Your task to perform on an android device: Search for flights from NYC to Barcelona Image 0: 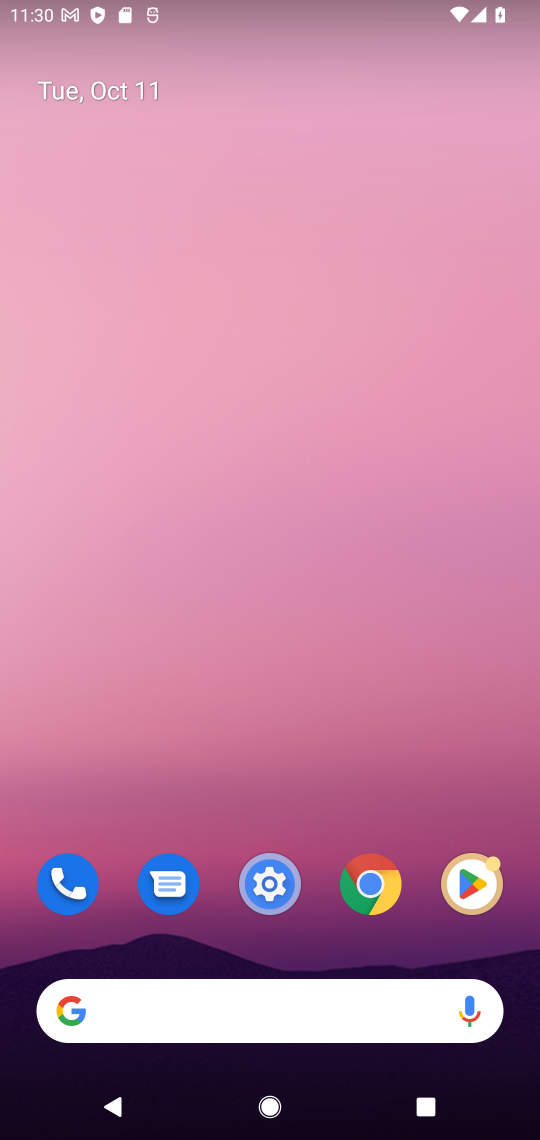
Step 0: drag from (263, 582) to (255, 166)
Your task to perform on an android device: Search for flights from NYC to Barcelona Image 1: 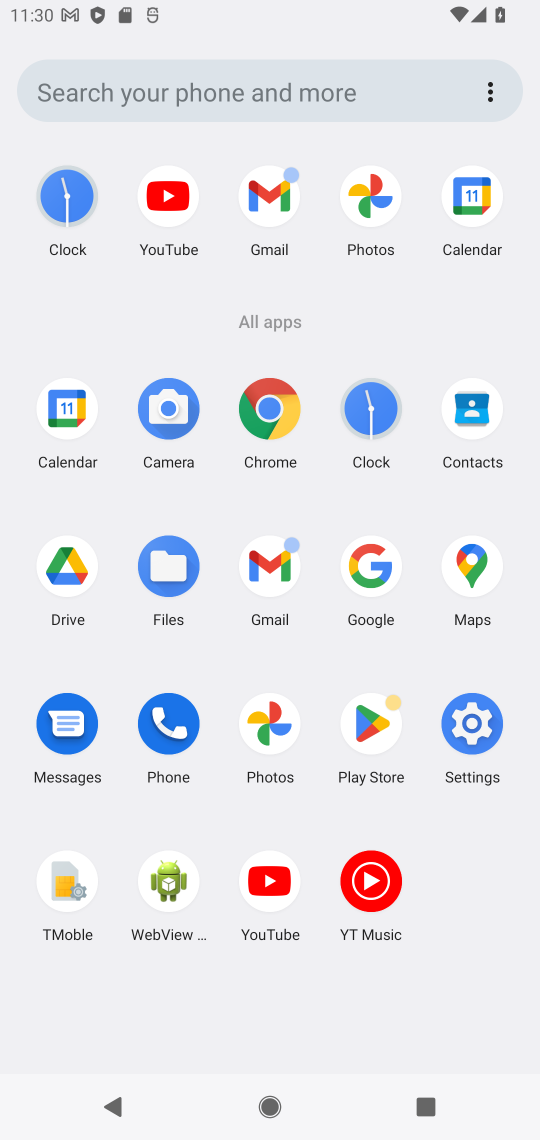
Step 1: click (368, 577)
Your task to perform on an android device: Search for flights from NYC to Barcelona Image 2: 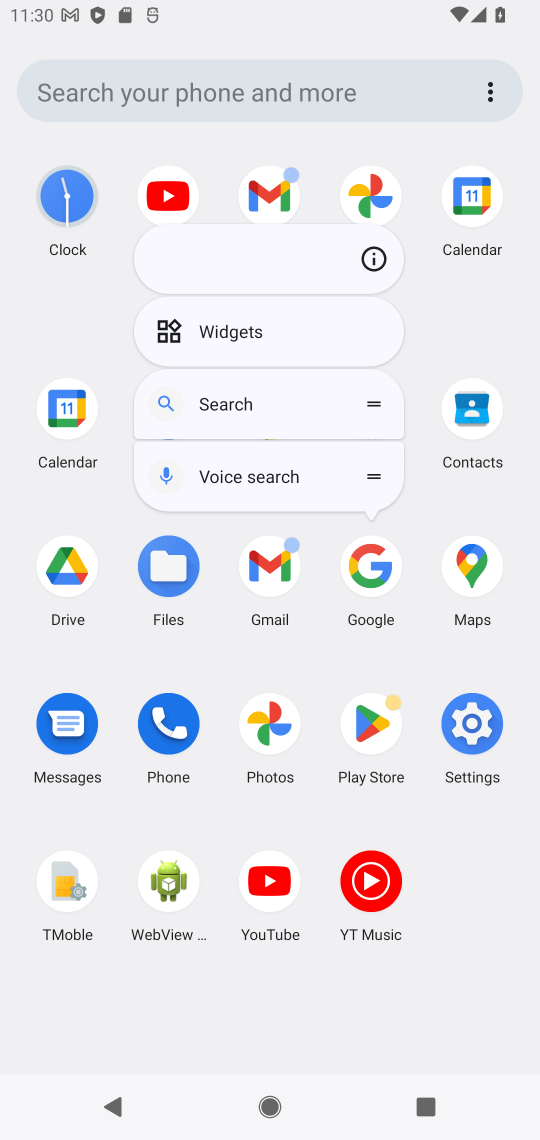
Step 2: click (366, 571)
Your task to perform on an android device: Search for flights from NYC to Barcelona Image 3: 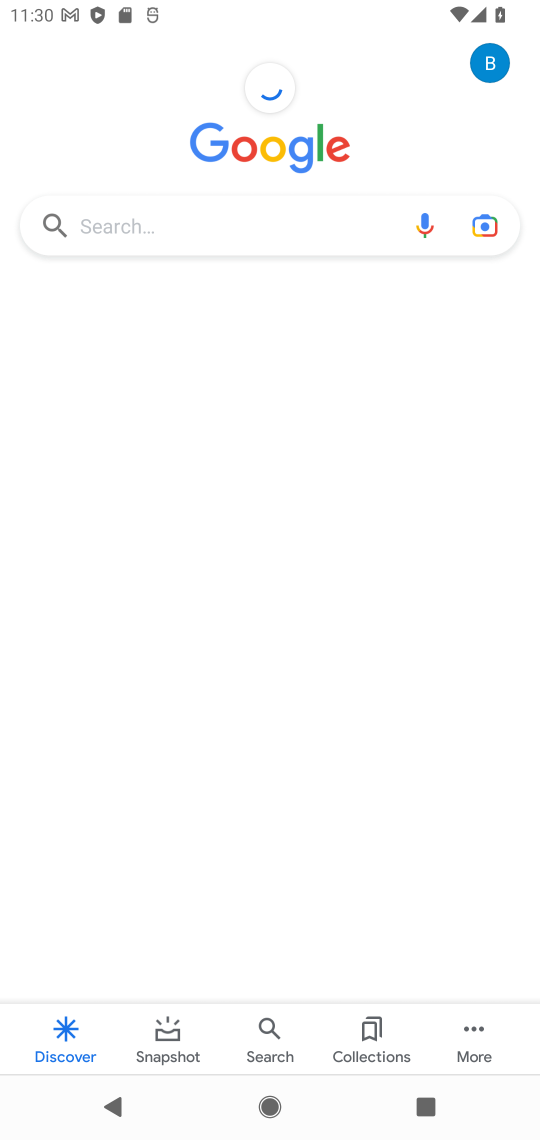
Step 3: click (173, 230)
Your task to perform on an android device: Search for flights from NYC to Barcelona Image 4: 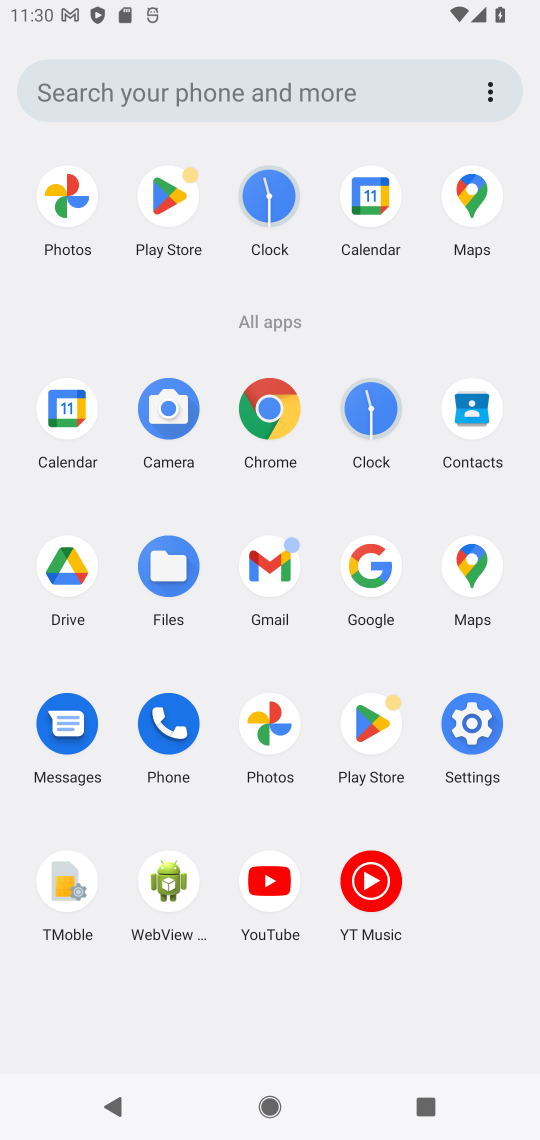
Step 4: type "Search for flights from NYC to Barcelona"
Your task to perform on an android device: Search for flights from NYC to Barcelona Image 5: 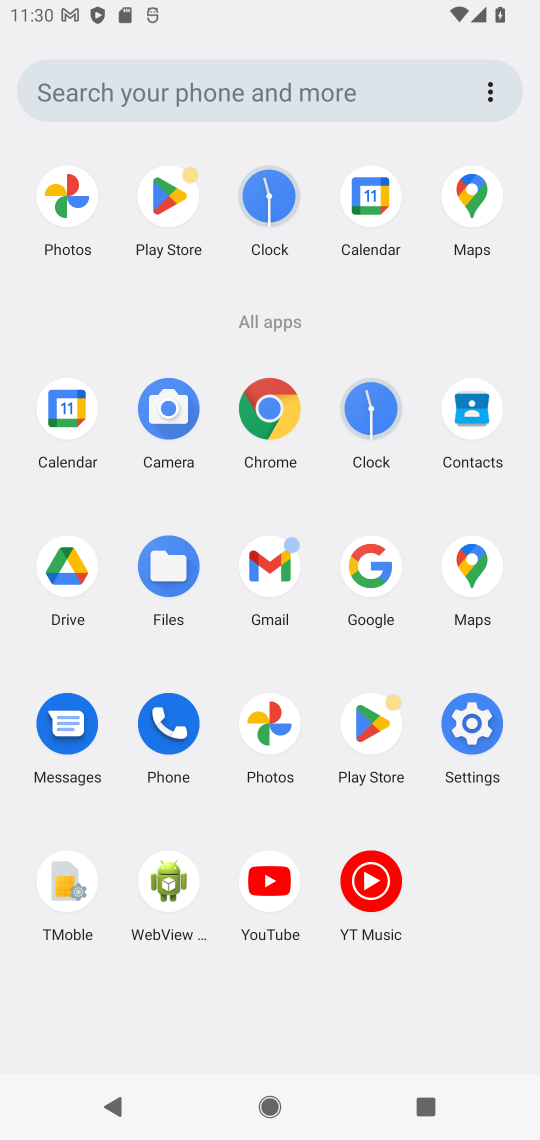
Step 5: click (370, 558)
Your task to perform on an android device: Search for flights from NYC to Barcelona Image 6: 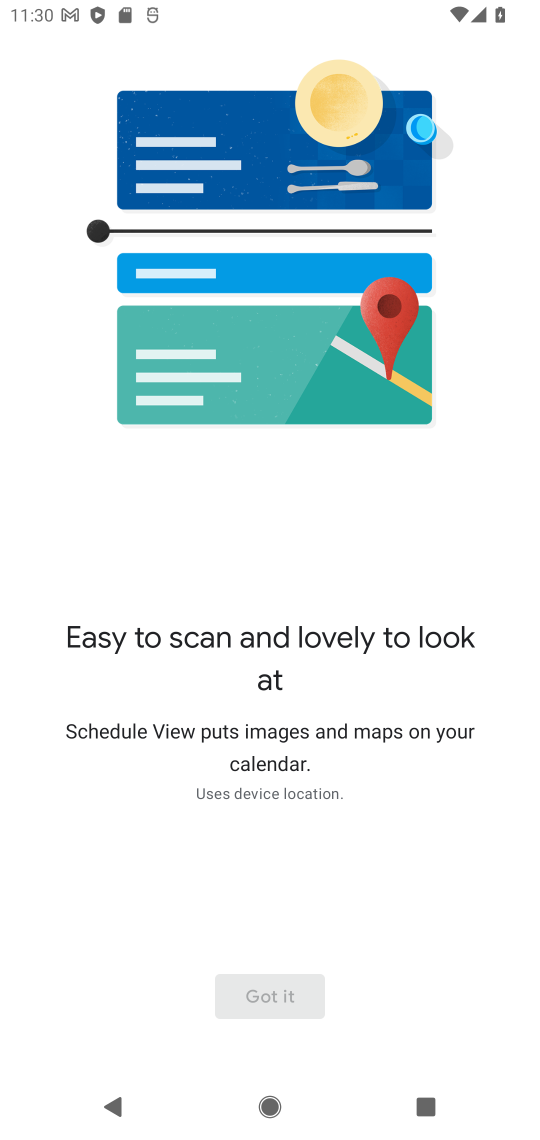
Step 6: click (260, 998)
Your task to perform on an android device: Search for flights from NYC to Barcelona Image 7: 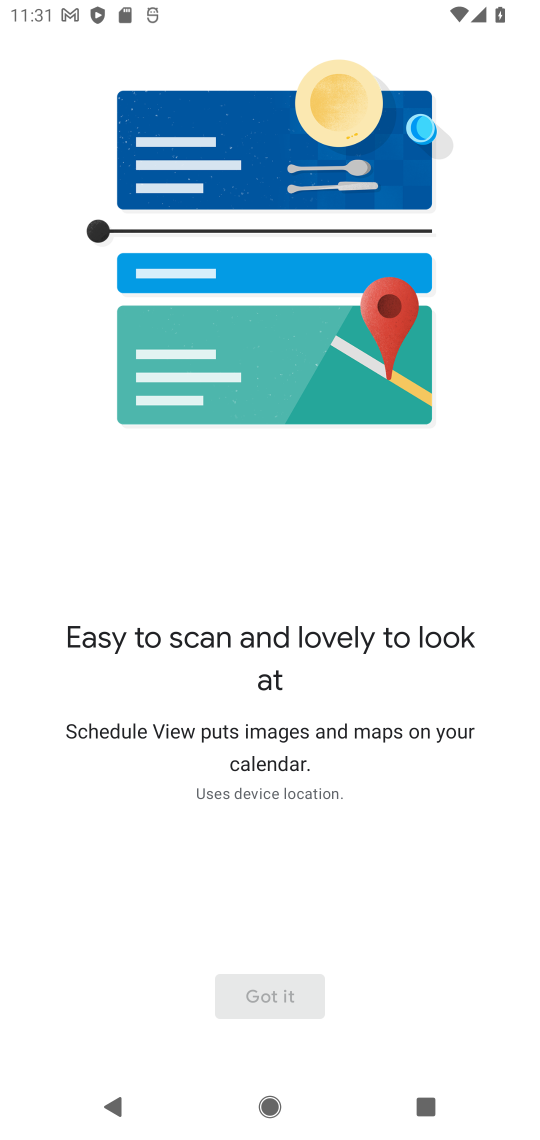
Step 7: task complete